Your task to perform on an android device: Open battery settings Image 0: 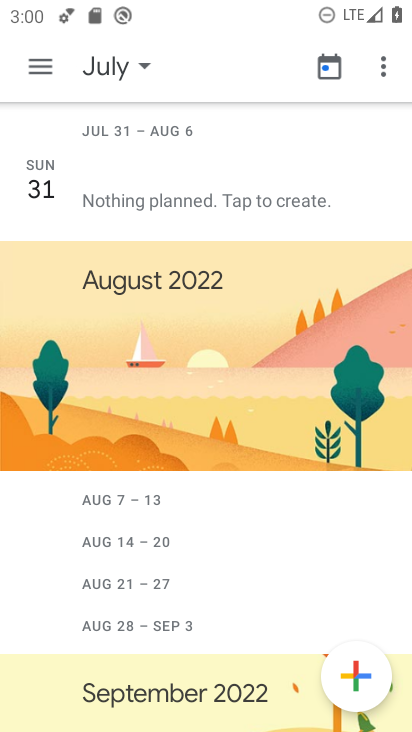
Step 0: press home button
Your task to perform on an android device: Open battery settings Image 1: 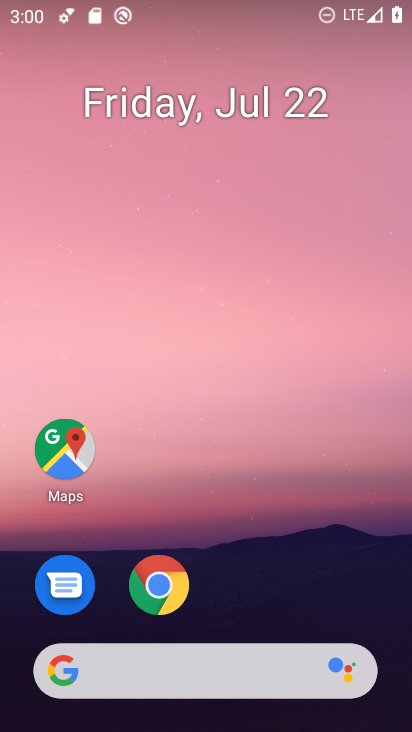
Step 1: drag from (248, 576) to (236, 29)
Your task to perform on an android device: Open battery settings Image 2: 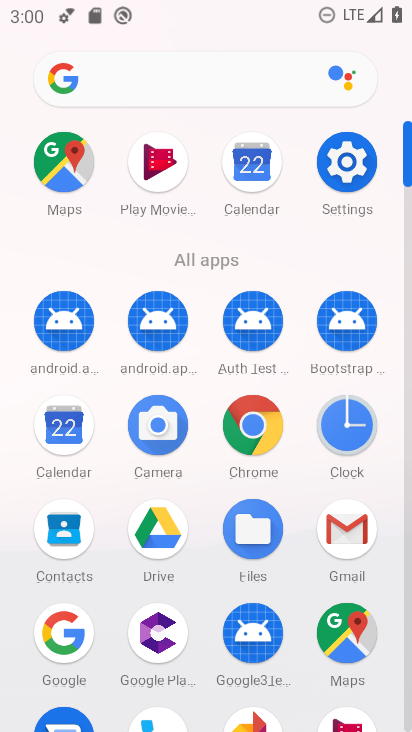
Step 2: click (342, 167)
Your task to perform on an android device: Open battery settings Image 3: 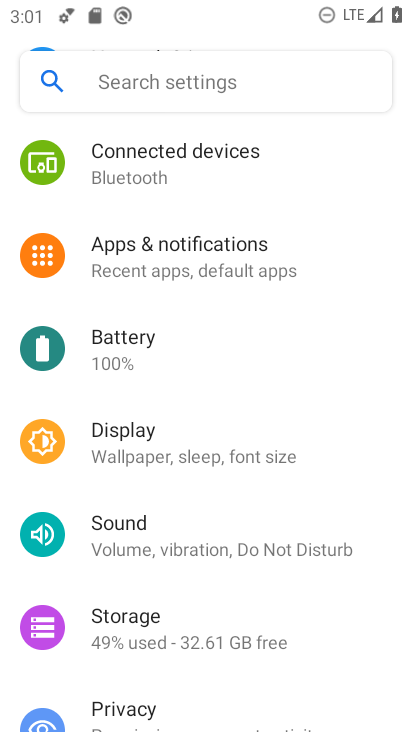
Step 3: click (114, 336)
Your task to perform on an android device: Open battery settings Image 4: 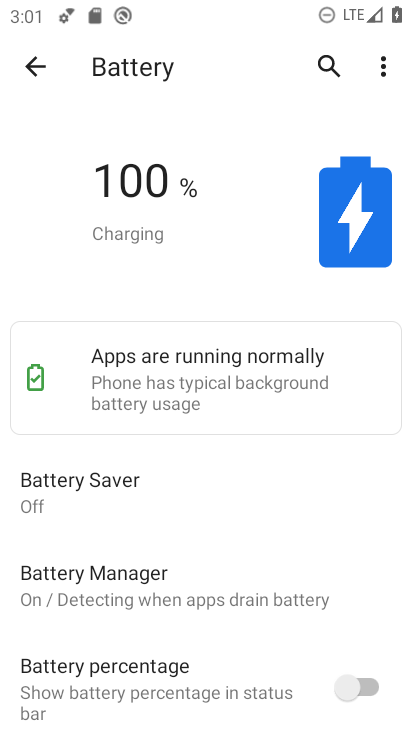
Step 4: task complete